Your task to perform on an android device: Open the map Image 0: 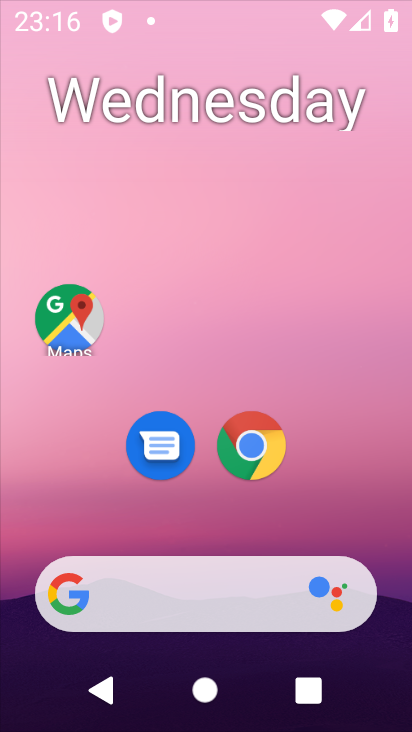
Step 0: drag from (230, 536) to (293, 15)
Your task to perform on an android device: Open the map Image 1: 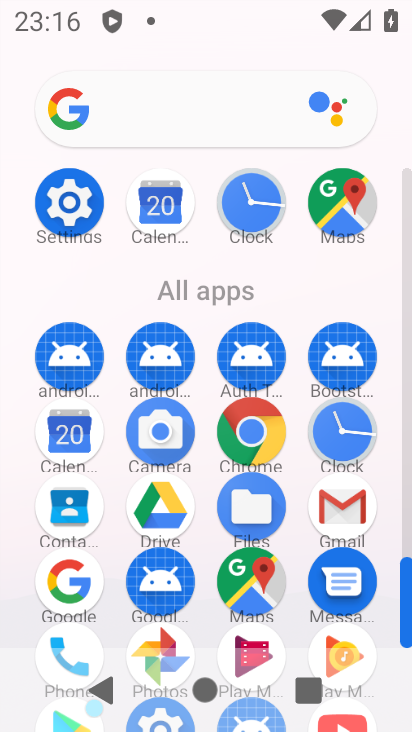
Step 1: click (338, 187)
Your task to perform on an android device: Open the map Image 2: 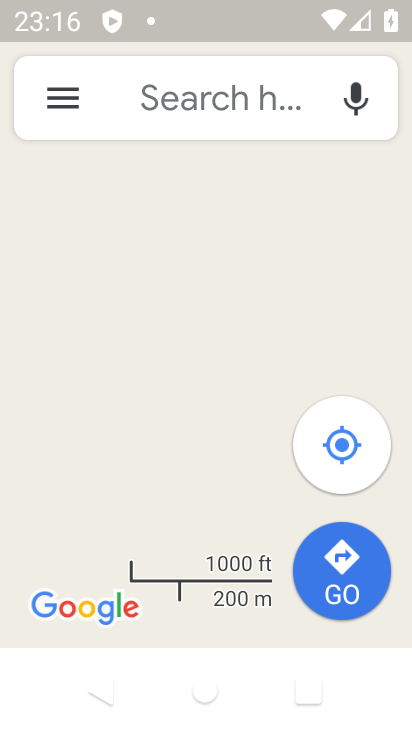
Step 2: click (151, 105)
Your task to perform on an android device: Open the map Image 3: 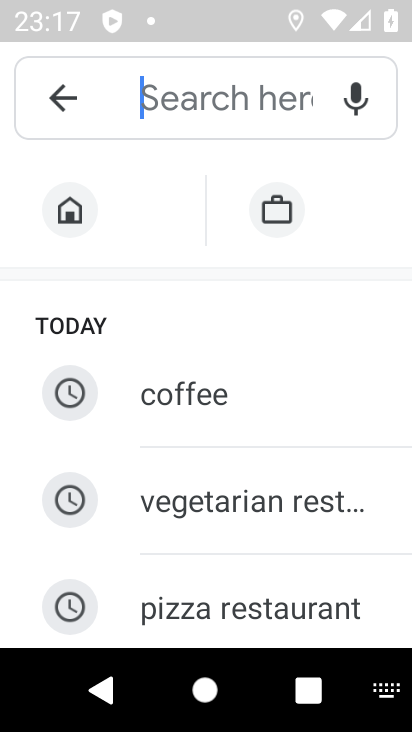
Step 3: press home button
Your task to perform on an android device: Open the map Image 4: 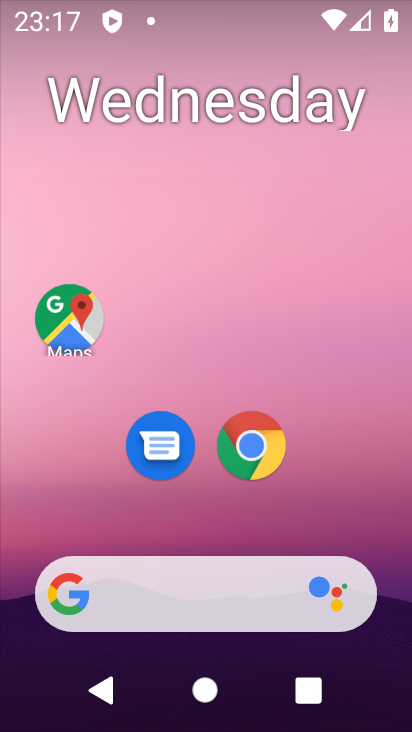
Step 4: click (80, 310)
Your task to perform on an android device: Open the map Image 5: 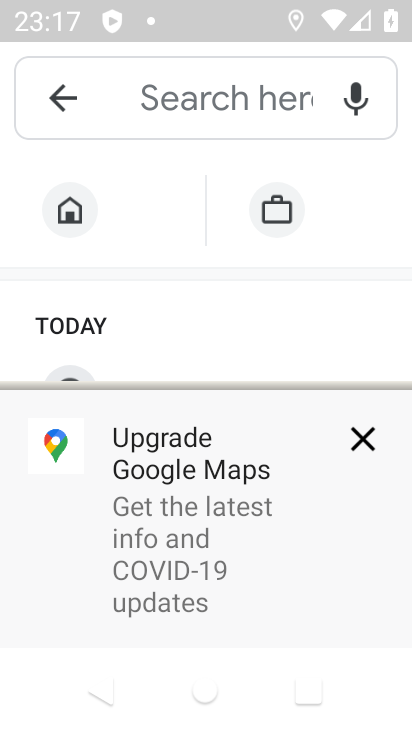
Step 5: task complete